Your task to perform on an android device: turn off data saver in the chrome app Image 0: 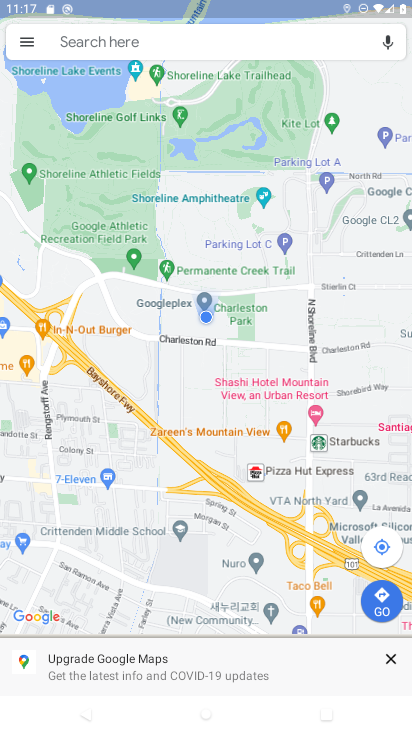
Step 0: press home button
Your task to perform on an android device: turn off data saver in the chrome app Image 1: 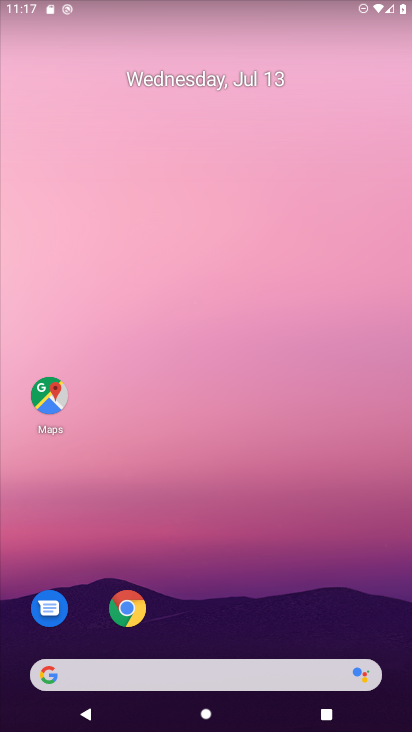
Step 1: click (121, 623)
Your task to perform on an android device: turn off data saver in the chrome app Image 2: 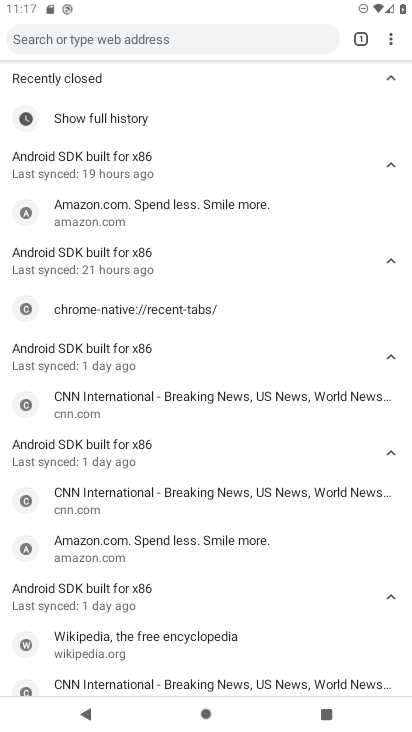
Step 2: click (389, 45)
Your task to perform on an android device: turn off data saver in the chrome app Image 3: 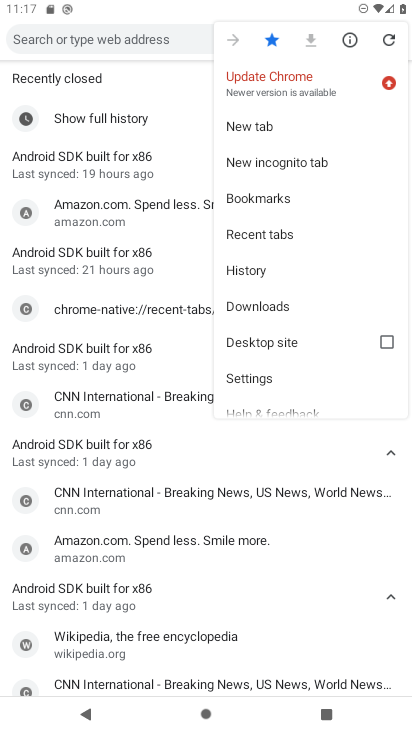
Step 3: click (256, 382)
Your task to perform on an android device: turn off data saver in the chrome app Image 4: 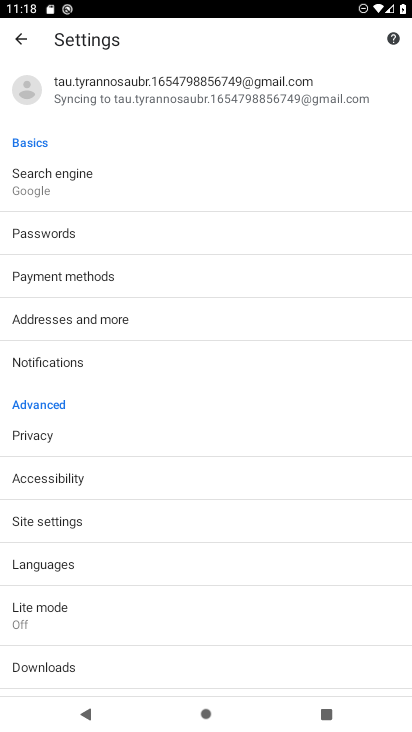
Step 4: click (40, 626)
Your task to perform on an android device: turn off data saver in the chrome app Image 5: 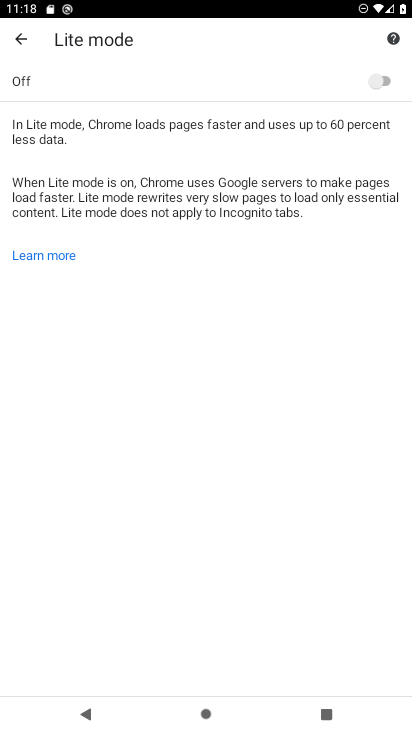
Step 5: task complete